Your task to perform on an android device: Search for "energizer triple a" on target.com, select the first entry, add it to the cart, then select checkout. Image 0: 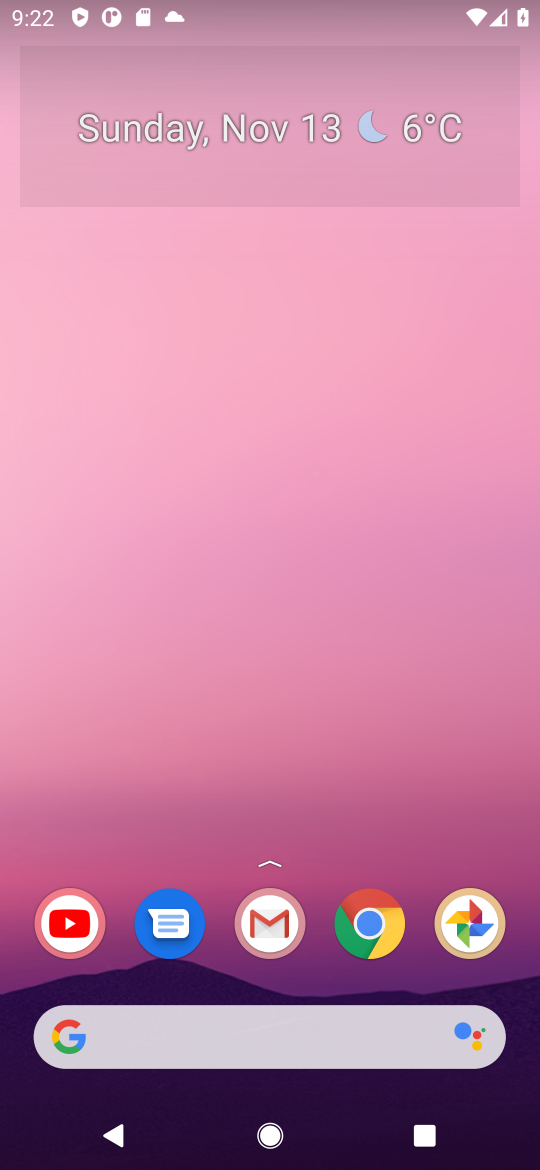
Step 0: click (375, 911)
Your task to perform on an android device: Search for "energizer triple a" on target.com, select the first entry, add it to the cart, then select checkout. Image 1: 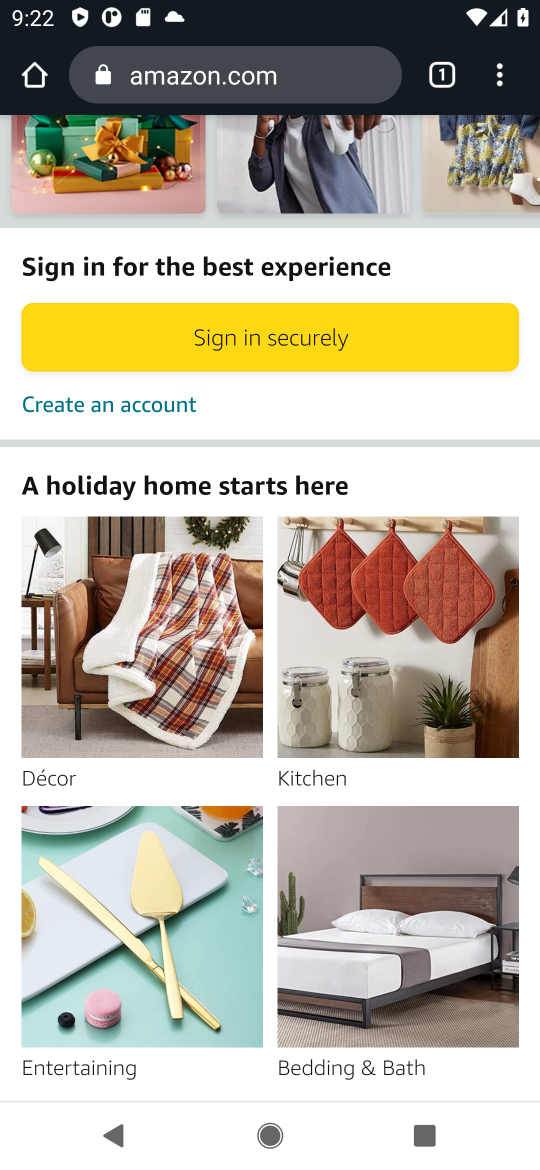
Step 1: click (257, 78)
Your task to perform on an android device: Search for "energizer triple a" on target.com, select the first entry, add it to the cart, then select checkout. Image 2: 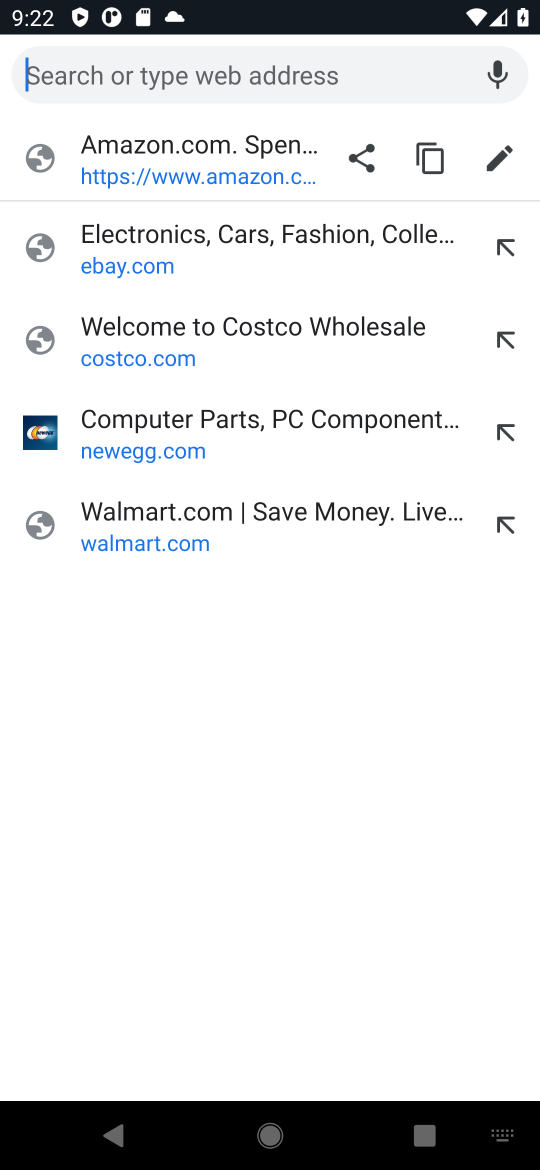
Step 2: type "target.com"
Your task to perform on an android device: Search for "energizer triple a" on target.com, select the first entry, add it to the cart, then select checkout. Image 3: 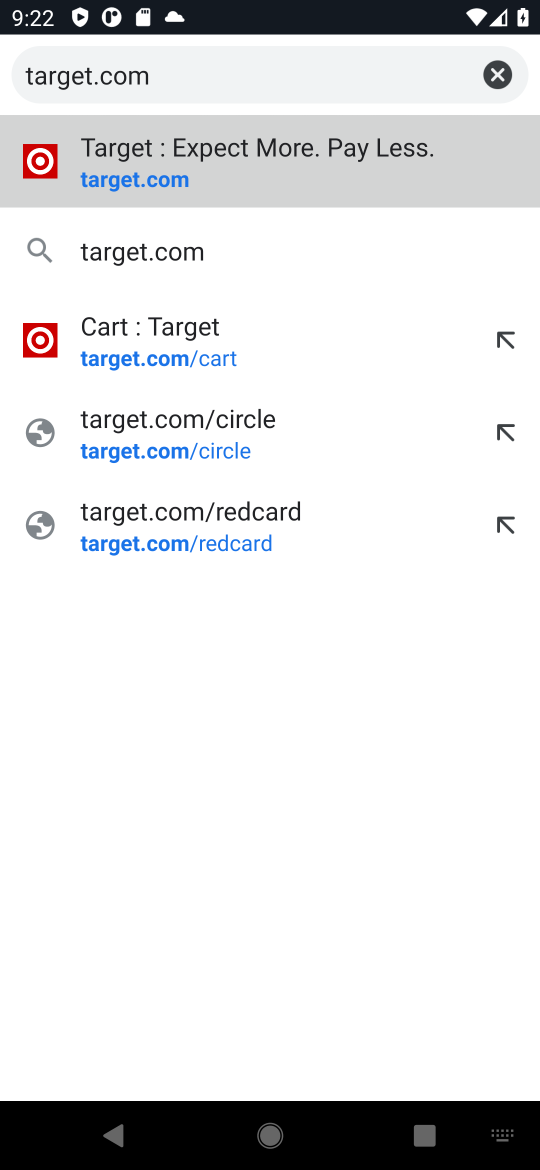
Step 3: press enter
Your task to perform on an android device: Search for "energizer triple a" on target.com, select the first entry, add it to the cart, then select checkout. Image 4: 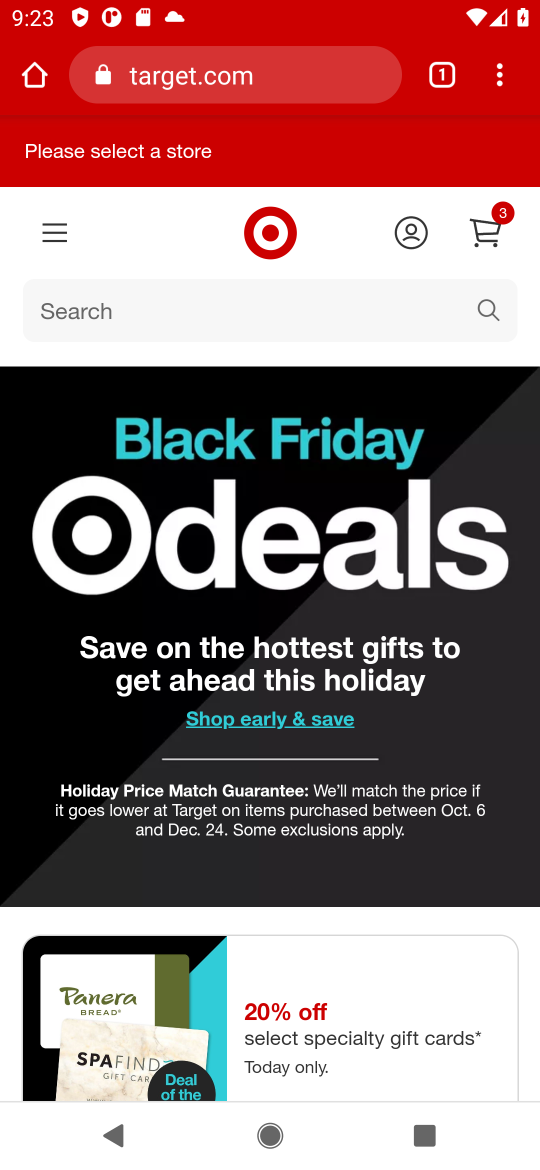
Step 4: click (492, 313)
Your task to perform on an android device: Search for "energizer triple a" on target.com, select the first entry, add it to the cart, then select checkout. Image 5: 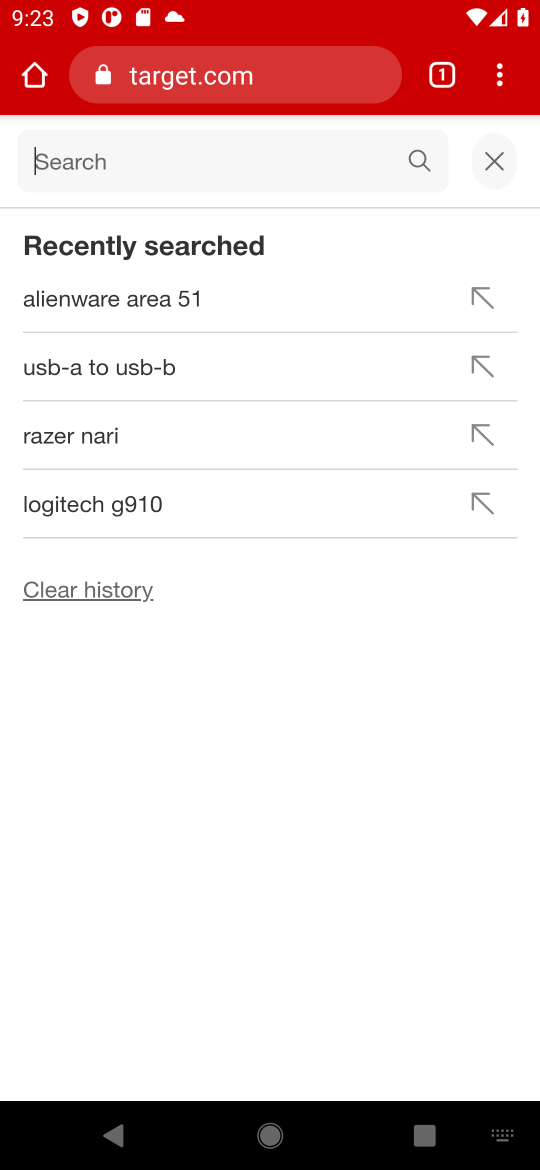
Step 5: type "energizer triple a"
Your task to perform on an android device: Search for "energizer triple a" on target.com, select the first entry, add it to the cart, then select checkout. Image 6: 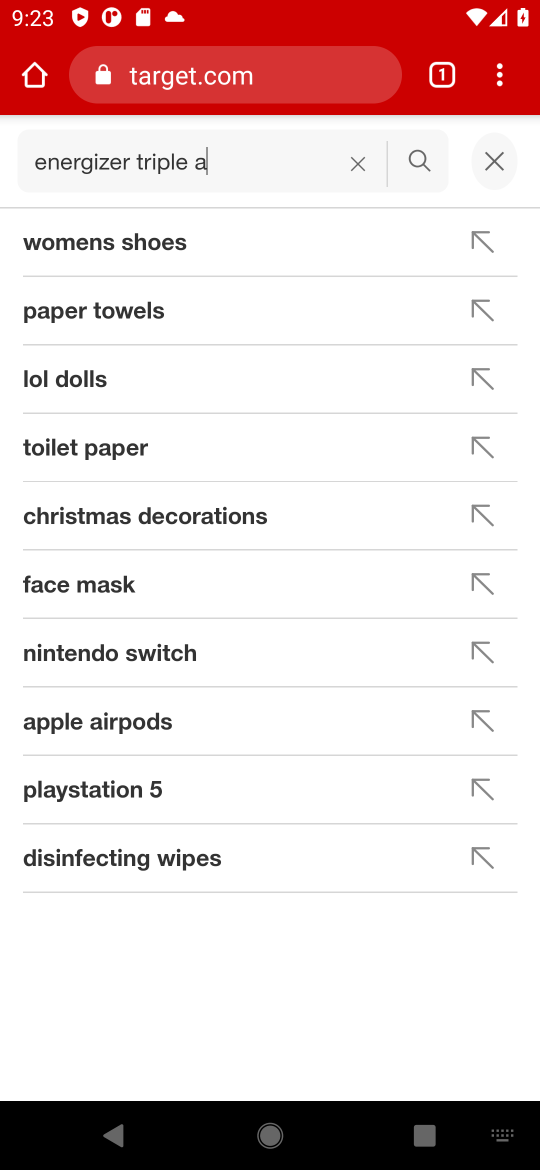
Step 6: press enter
Your task to perform on an android device: Search for "energizer triple a" on target.com, select the first entry, add it to the cart, then select checkout. Image 7: 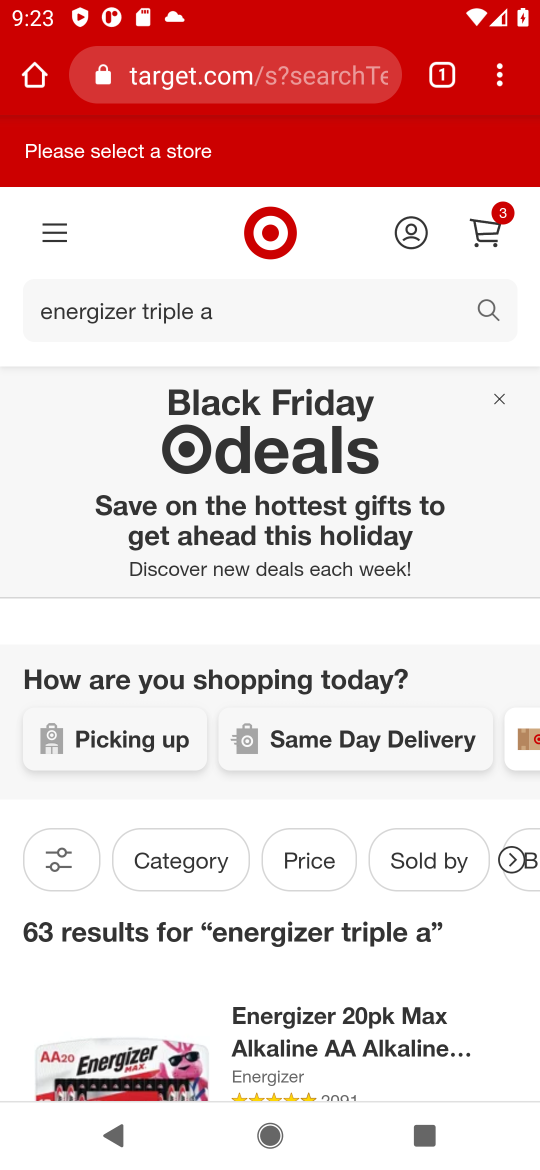
Step 7: drag from (376, 1017) to (433, 579)
Your task to perform on an android device: Search for "energizer triple a" on target.com, select the first entry, add it to the cart, then select checkout. Image 8: 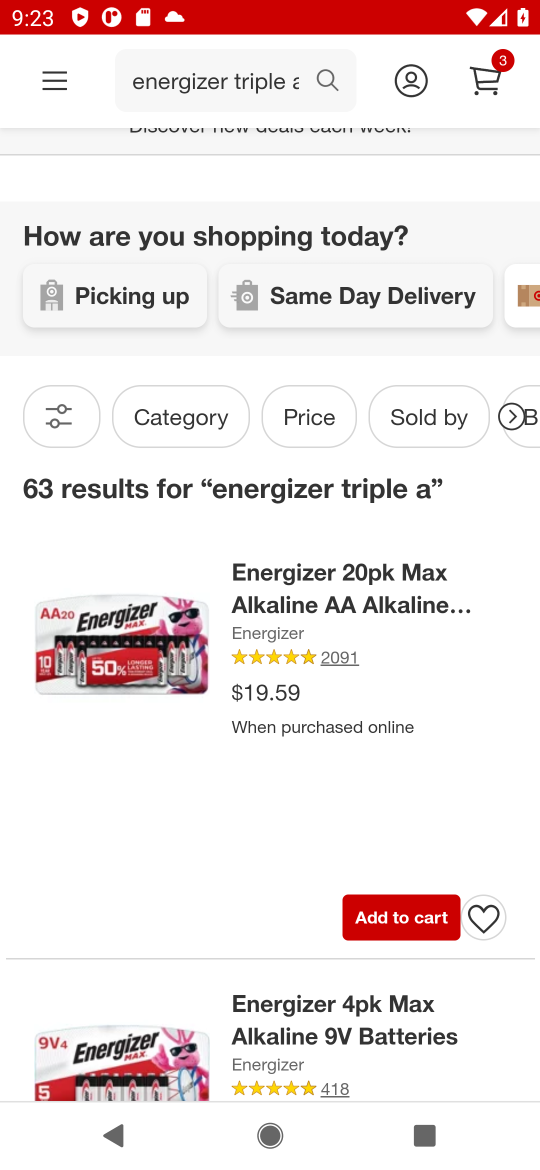
Step 8: drag from (293, 956) to (298, 681)
Your task to perform on an android device: Search for "energizer triple a" on target.com, select the first entry, add it to the cart, then select checkout. Image 9: 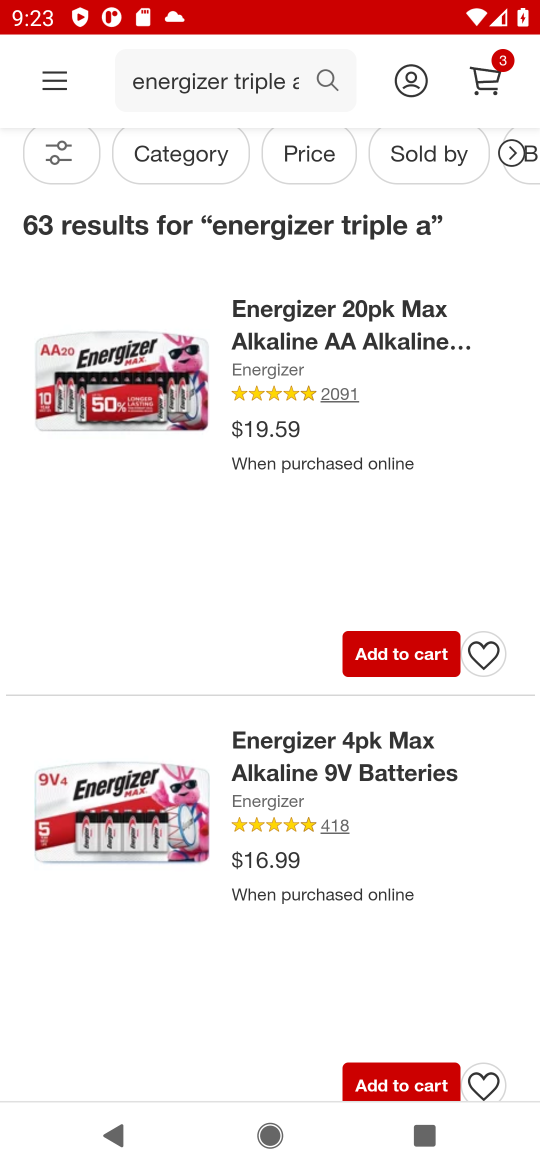
Step 9: drag from (265, 735) to (320, 572)
Your task to perform on an android device: Search for "energizer triple a" on target.com, select the first entry, add it to the cart, then select checkout. Image 10: 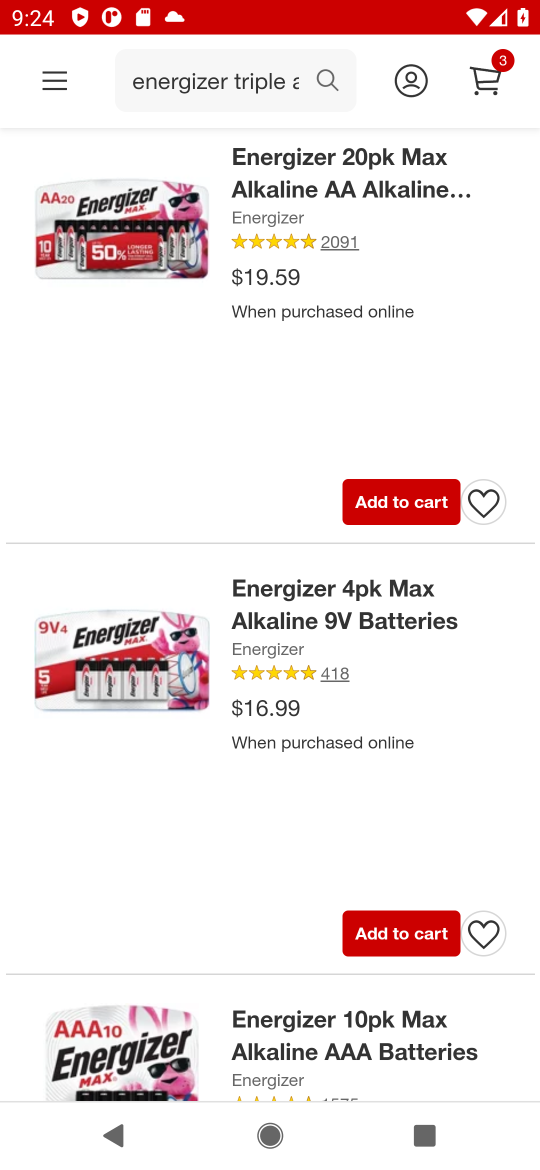
Step 10: drag from (320, 884) to (314, 608)
Your task to perform on an android device: Search for "energizer triple a" on target.com, select the first entry, add it to the cart, then select checkout. Image 11: 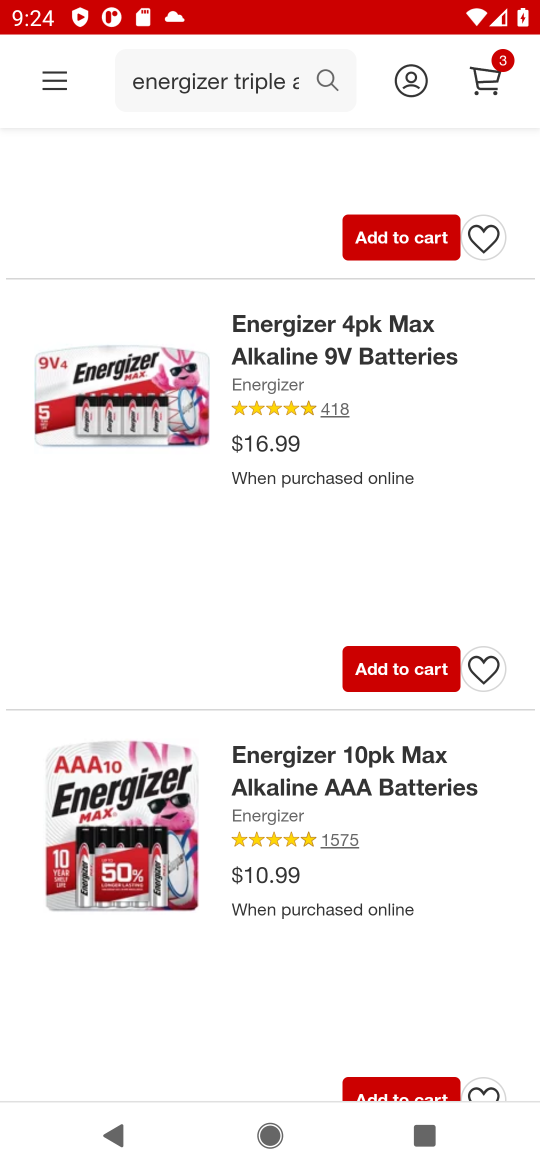
Step 11: click (137, 795)
Your task to perform on an android device: Search for "energizer triple a" on target.com, select the first entry, add it to the cart, then select checkout. Image 12: 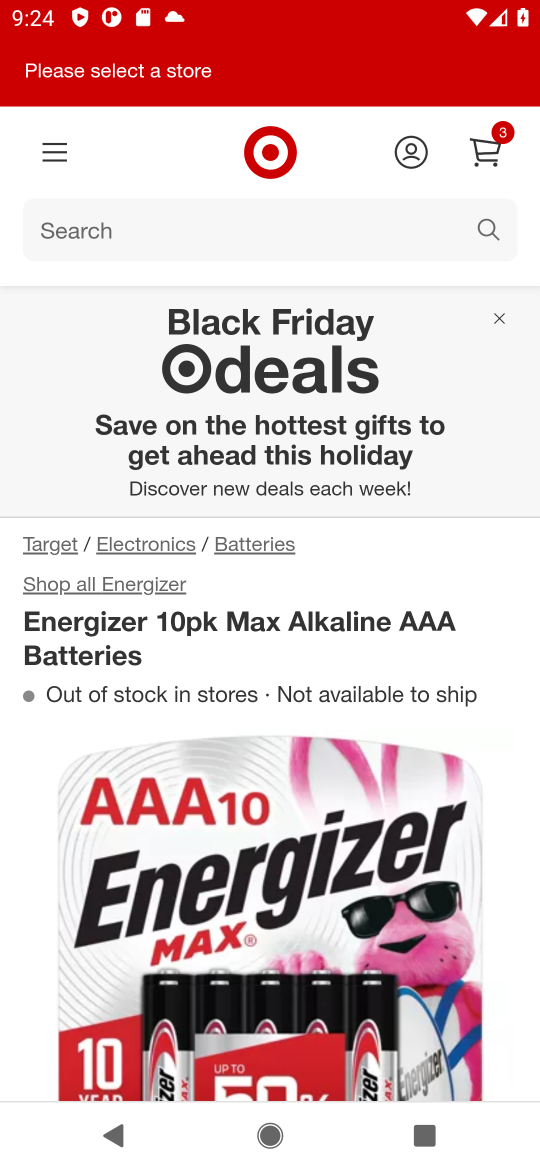
Step 12: drag from (435, 756) to (472, 397)
Your task to perform on an android device: Search for "energizer triple a" on target.com, select the first entry, add it to the cart, then select checkout. Image 13: 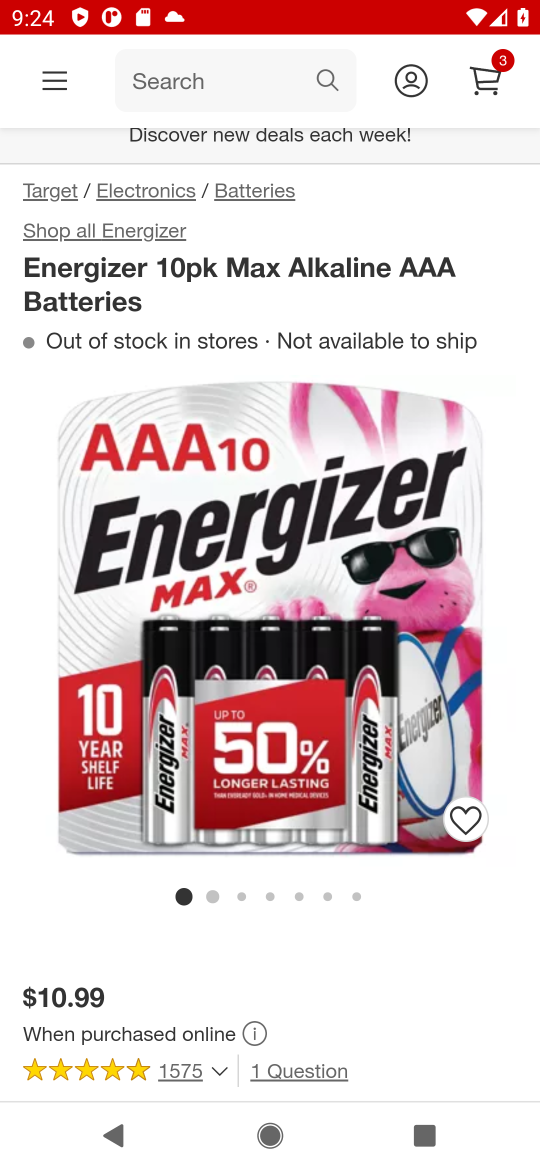
Step 13: drag from (407, 789) to (420, 356)
Your task to perform on an android device: Search for "energizer triple a" on target.com, select the first entry, add it to the cart, then select checkout. Image 14: 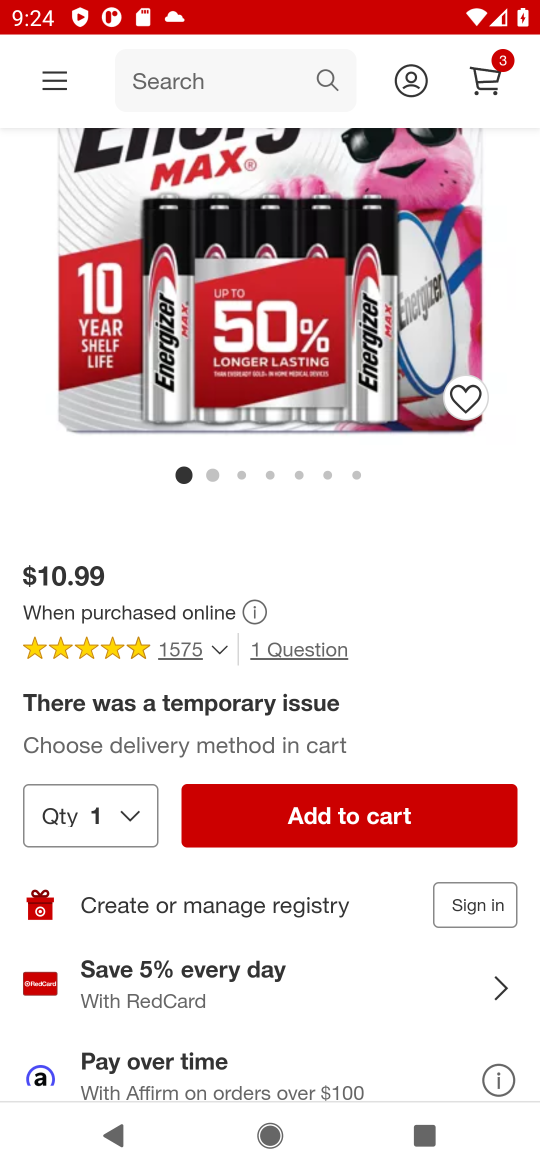
Step 14: click (378, 816)
Your task to perform on an android device: Search for "energizer triple a" on target.com, select the first entry, add it to the cart, then select checkout. Image 15: 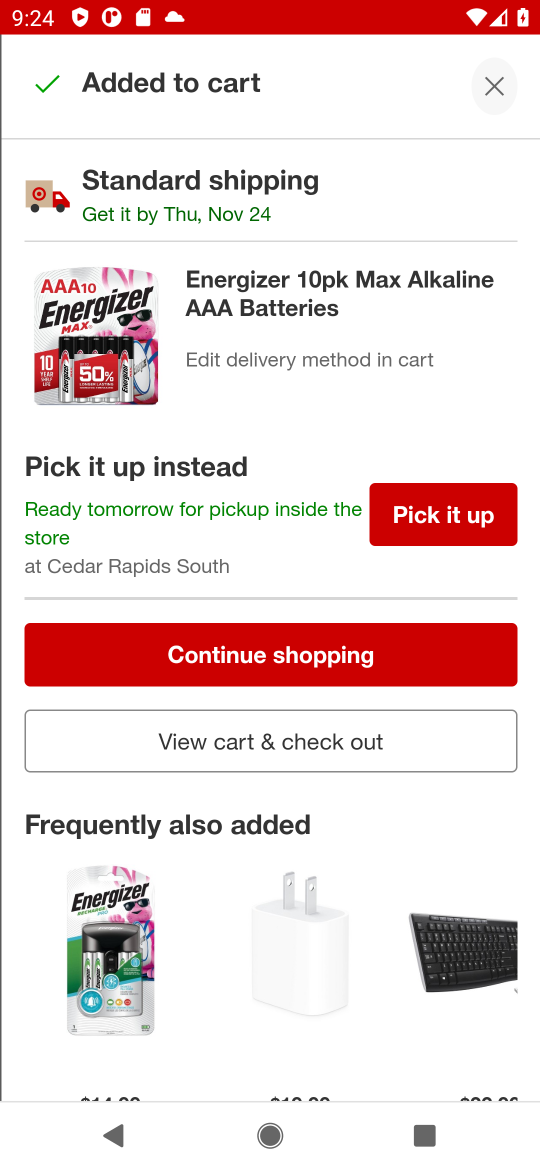
Step 15: click (326, 737)
Your task to perform on an android device: Search for "energizer triple a" on target.com, select the first entry, add it to the cart, then select checkout. Image 16: 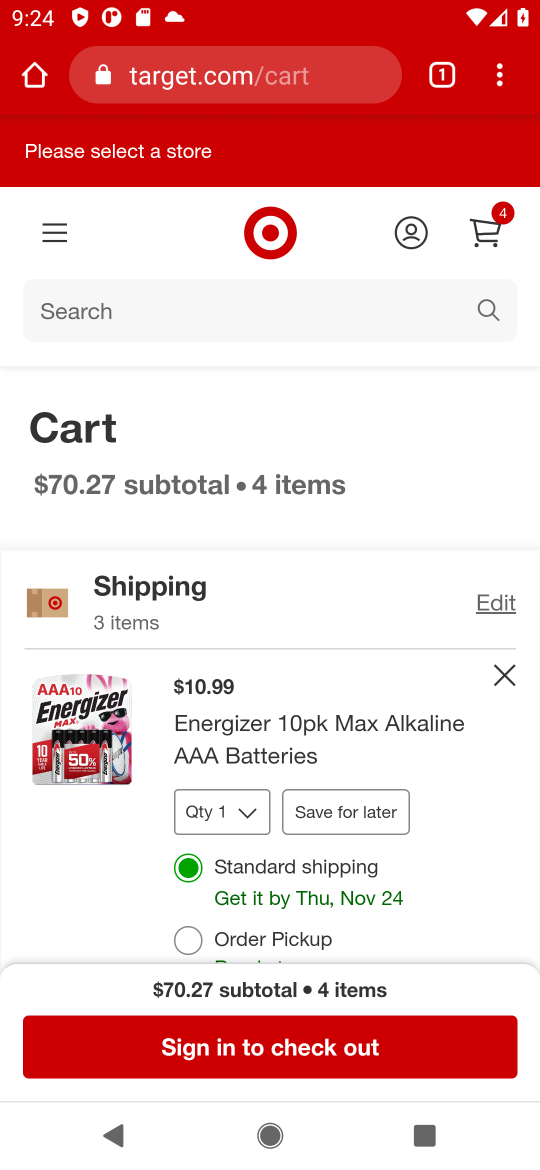
Step 16: click (379, 1037)
Your task to perform on an android device: Search for "energizer triple a" on target.com, select the first entry, add it to the cart, then select checkout. Image 17: 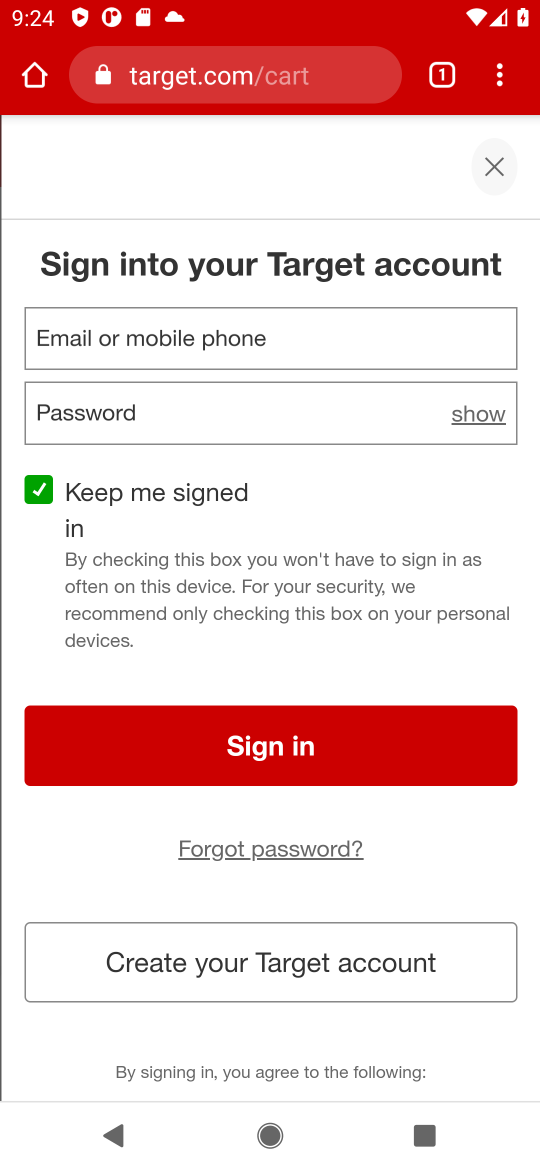
Step 17: task complete